Your task to perform on an android device: toggle data saver in the chrome app Image 0: 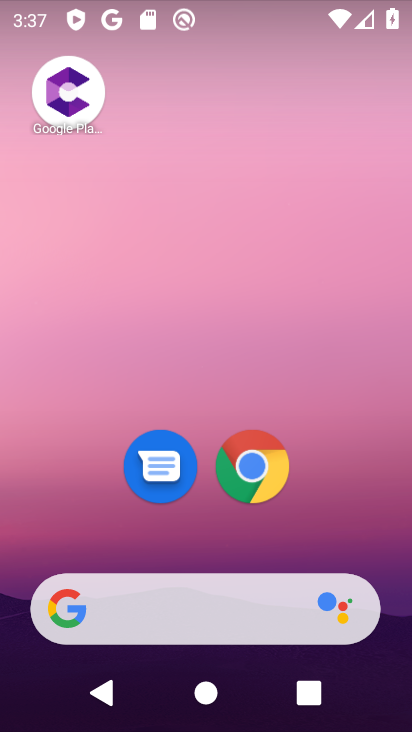
Step 0: click (258, 472)
Your task to perform on an android device: toggle data saver in the chrome app Image 1: 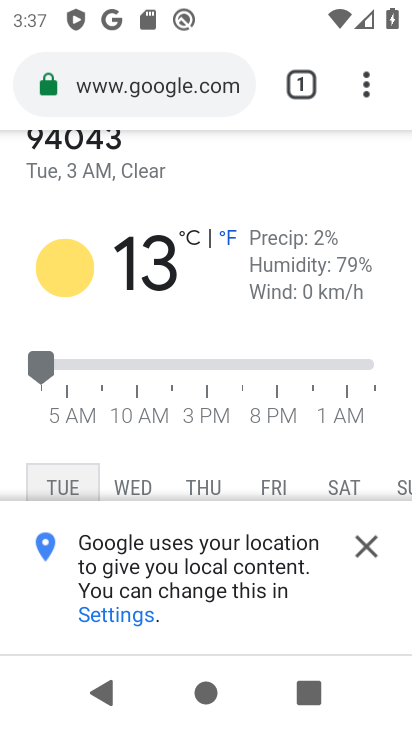
Step 1: click (363, 85)
Your task to perform on an android device: toggle data saver in the chrome app Image 2: 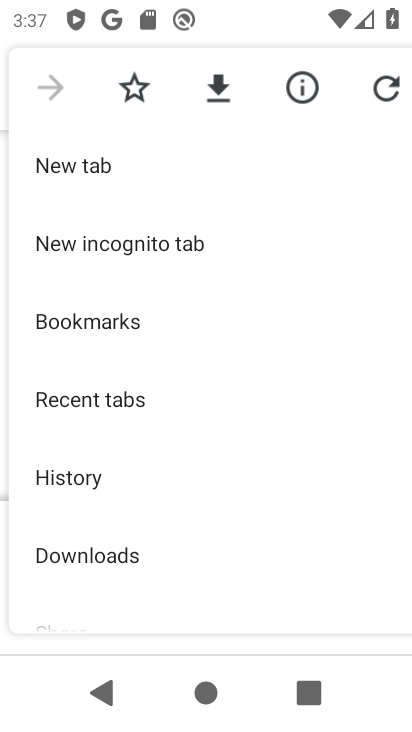
Step 2: drag from (163, 497) to (162, 250)
Your task to perform on an android device: toggle data saver in the chrome app Image 3: 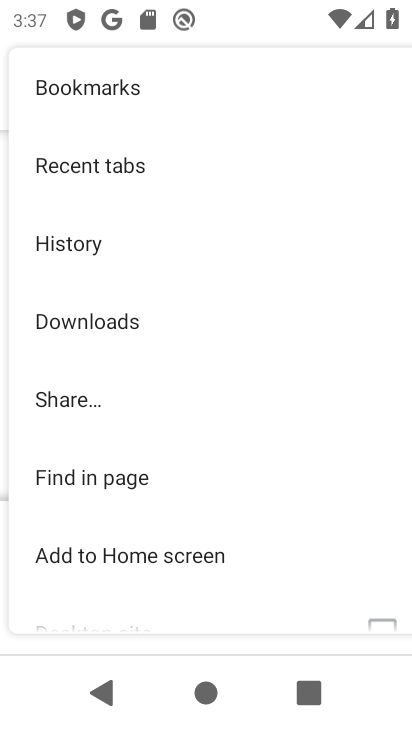
Step 3: drag from (169, 498) to (156, 302)
Your task to perform on an android device: toggle data saver in the chrome app Image 4: 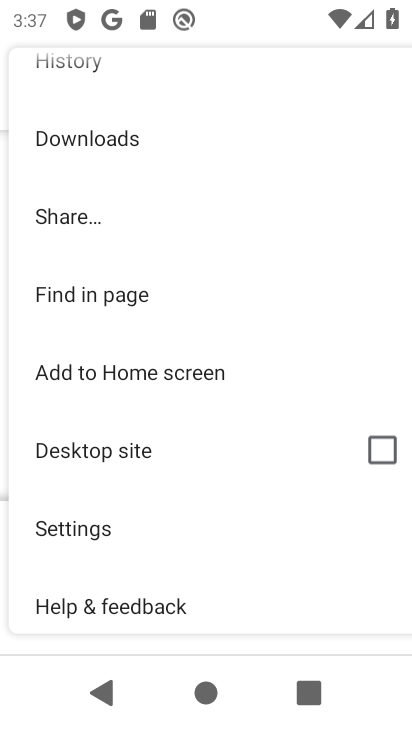
Step 4: click (127, 524)
Your task to perform on an android device: toggle data saver in the chrome app Image 5: 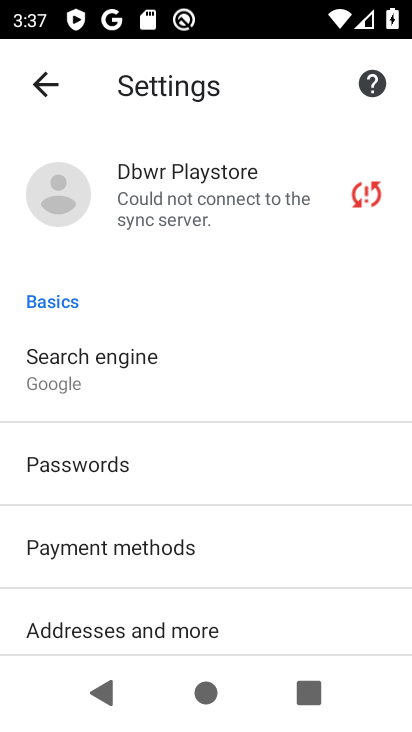
Step 5: drag from (276, 457) to (283, 188)
Your task to perform on an android device: toggle data saver in the chrome app Image 6: 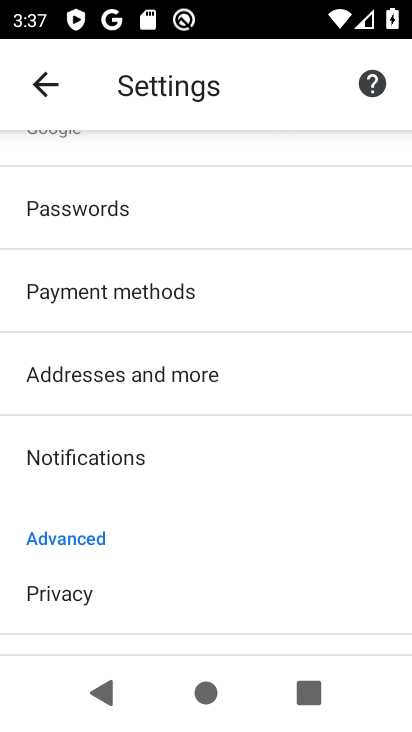
Step 6: drag from (235, 497) to (257, 258)
Your task to perform on an android device: toggle data saver in the chrome app Image 7: 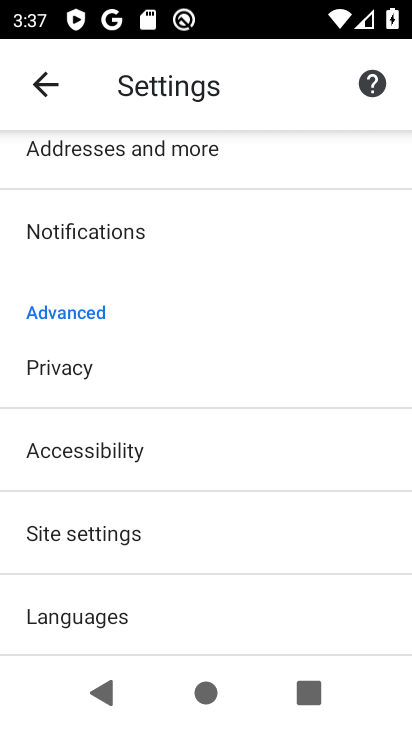
Step 7: drag from (123, 568) to (177, 284)
Your task to perform on an android device: toggle data saver in the chrome app Image 8: 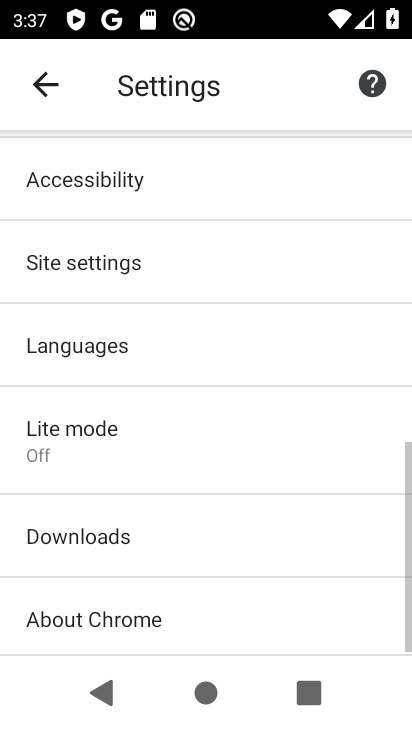
Step 8: click (109, 436)
Your task to perform on an android device: toggle data saver in the chrome app Image 9: 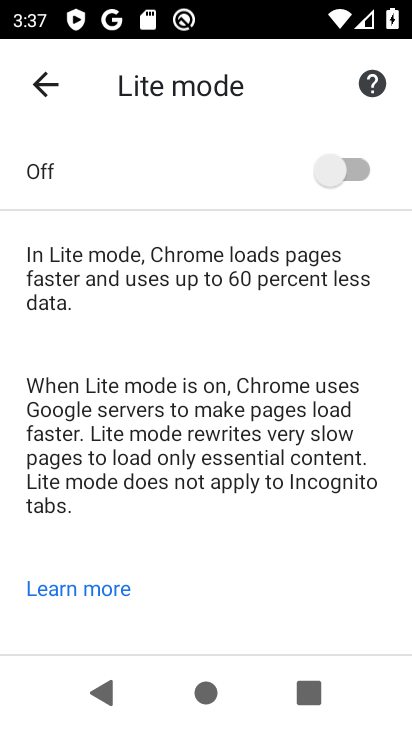
Step 9: click (366, 164)
Your task to perform on an android device: toggle data saver in the chrome app Image 10: 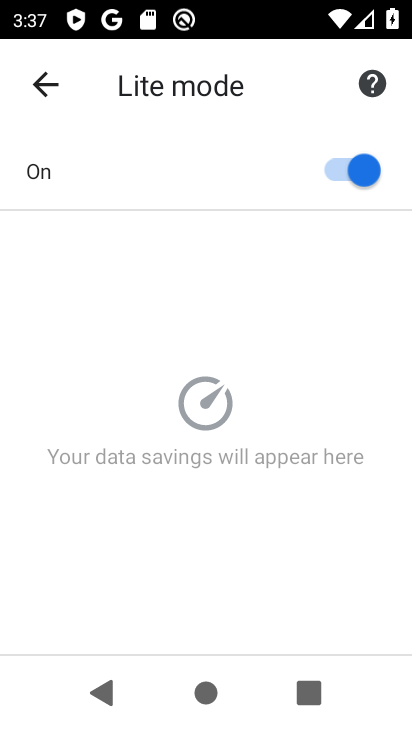
Step 10: task complete